Your task to perform on an android device: clear history in the chrome app Image 0: 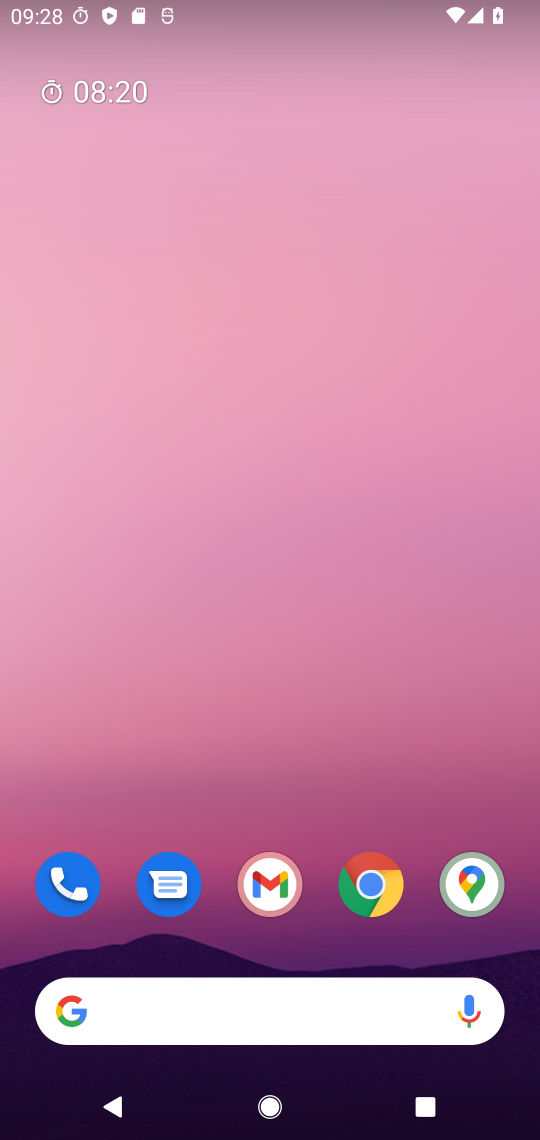
Step 0: click (370, 888)
Your task to perform on an android device: clear history in the chrome app Image 1: 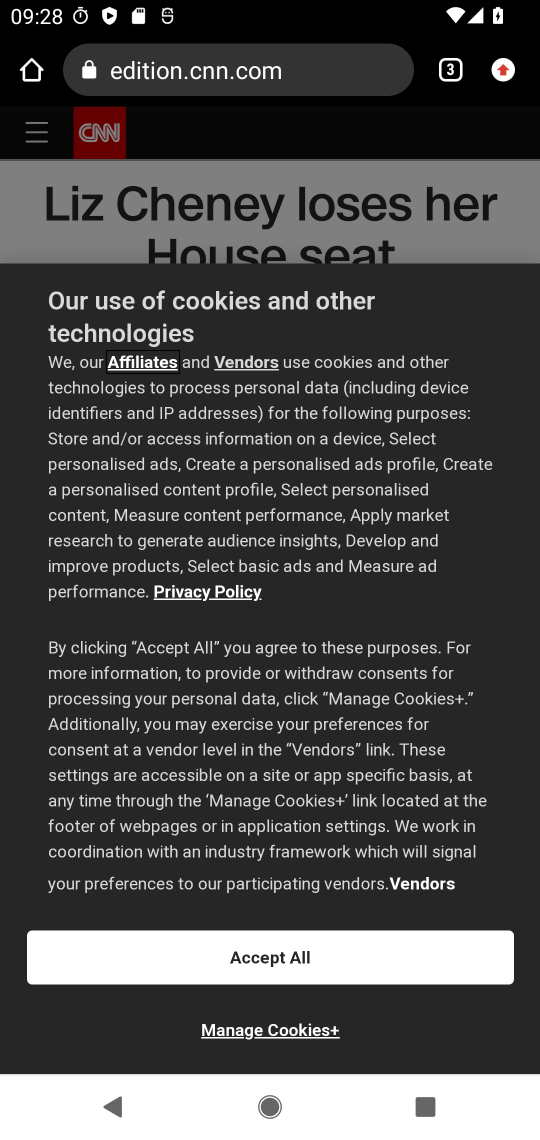
Step 1: click (501, 61)
Your task to perform on an android device: clear history in the chrome app Image 2: 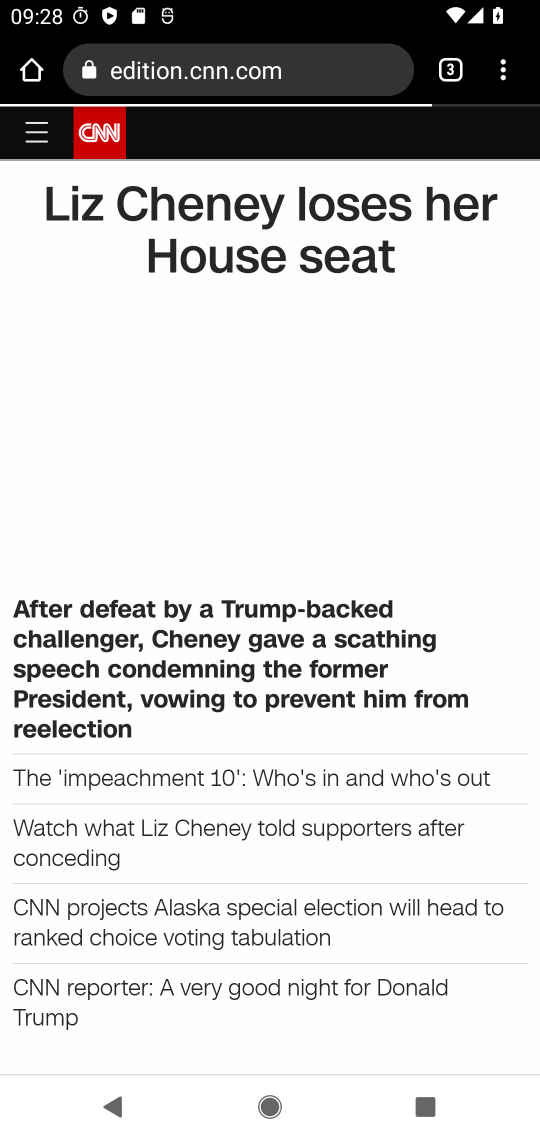
Step 2: click (497, 68)
Your task to perform on an android device: clear history in the chrome app Image 3: 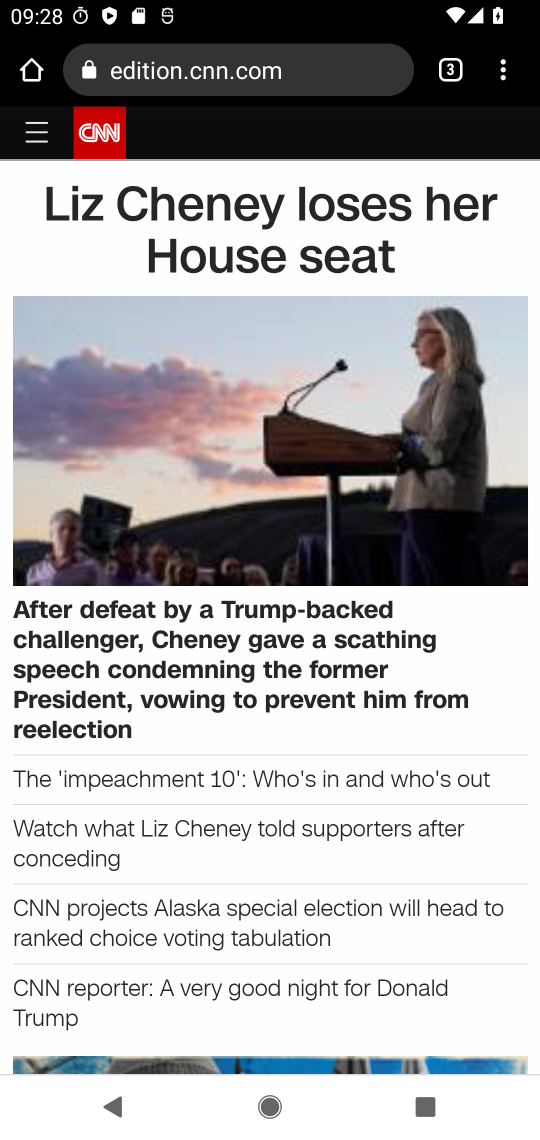
Step 3: drag from (504, 88) to (309, 377)
Your task to perform on an android device: clear history in the chrome app Image 4: 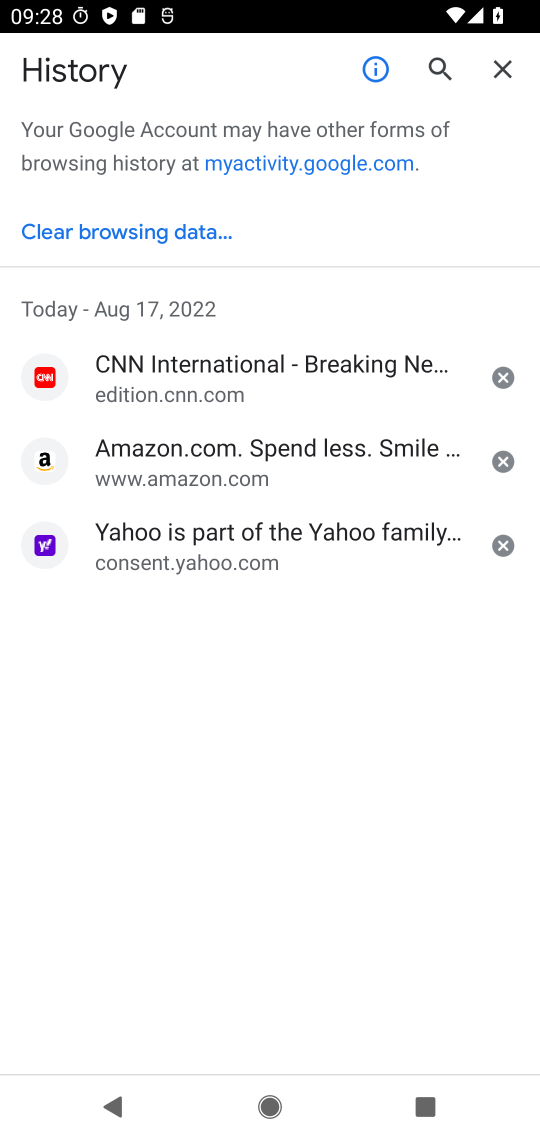
Step 4: click (176, 226)
Your task to perform on an android device: clear history in the chrome app Image 5: 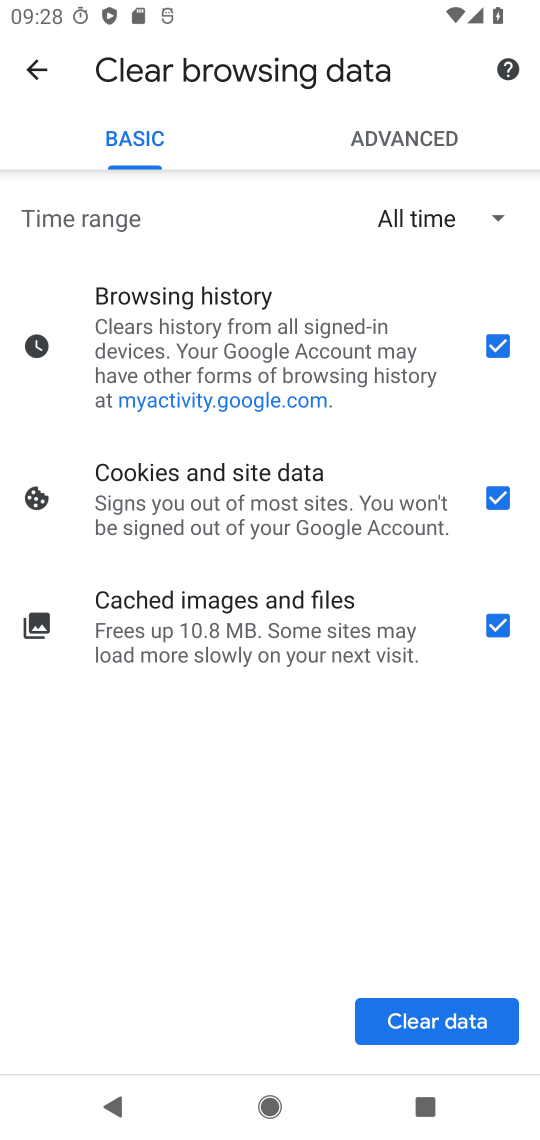
Step 5: click (475, 1007)
Your task to perform on an android device: clear history in the chrome app Image 6: 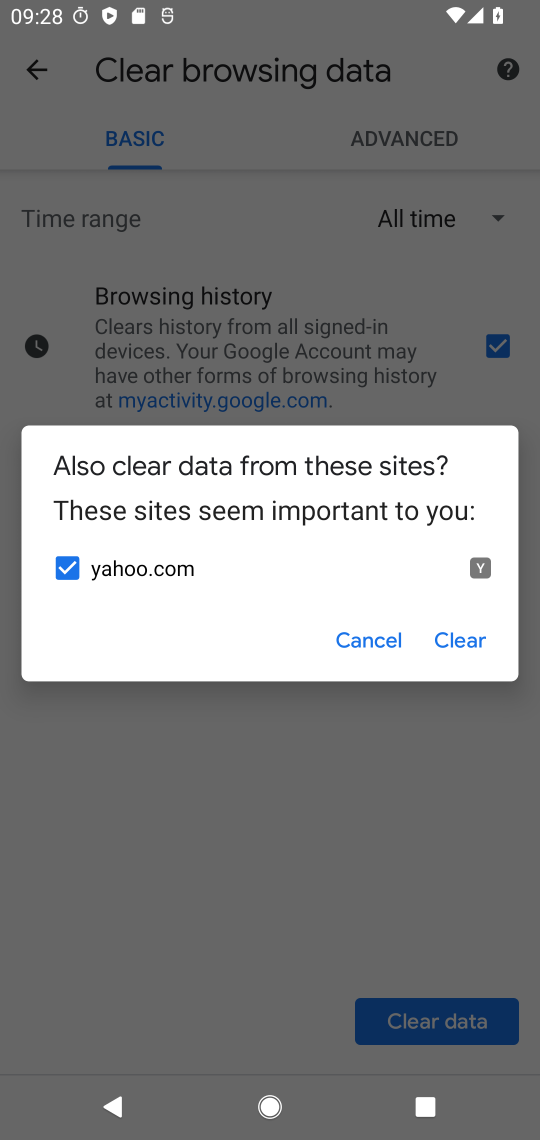
Step 6: click (457, 633)
Your task to perform on an android device: clear history in the chrome app Image 7: 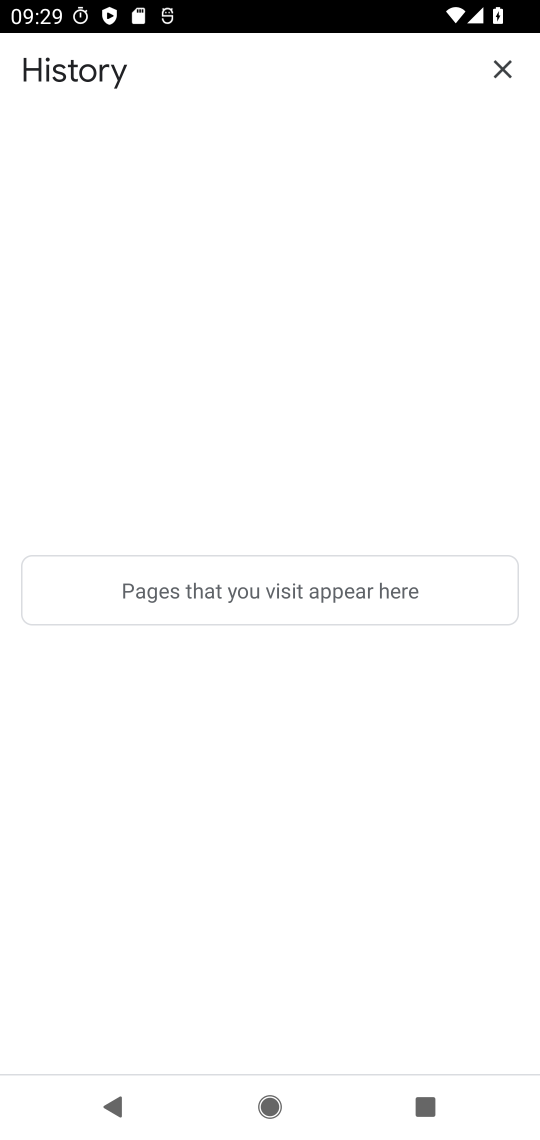
Step 7: task complete